Your task to perform on an android device: toggle pop-ups in chrome Image 0: 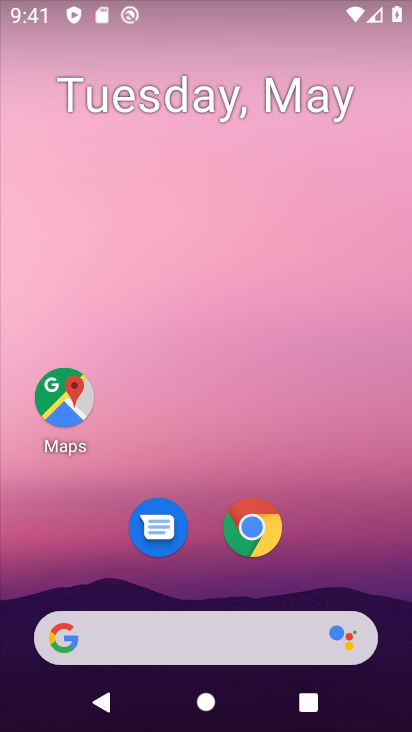
Step 0: click (252, 528)
Your task to perform on an android device: toggle pop-ups in chrome Image 1: 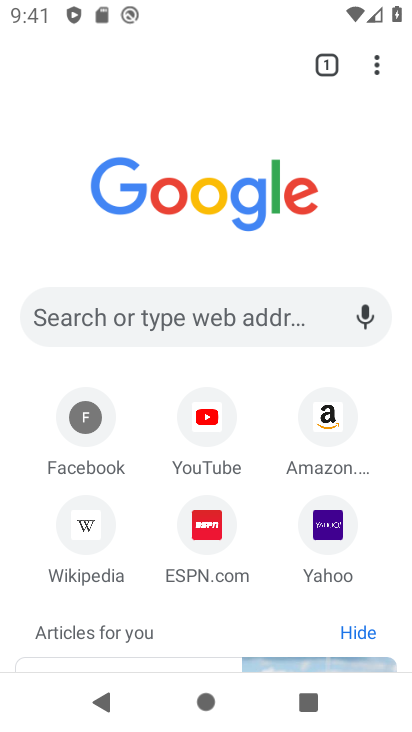
Step 1: click (377, 63)
Your task to perform on an android device: toggle pop-ups in chrome Image 2: 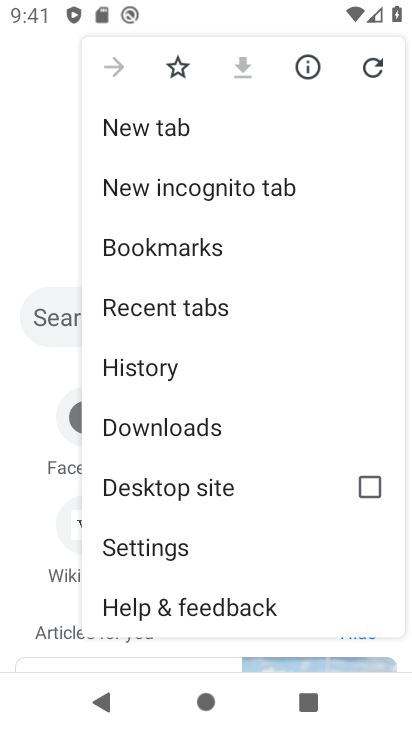
Step 2: drag from (191, 392) to (217, 310)
Your task to perform on an android device: toggle pop-ups in chrome Image 3: 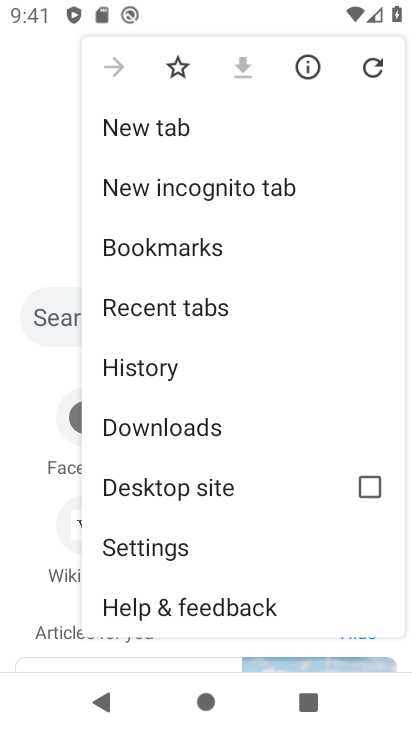
Step 3: click (160, 546)
Your task to perform on an android device: toggle pop-ups in chrome Image 4: 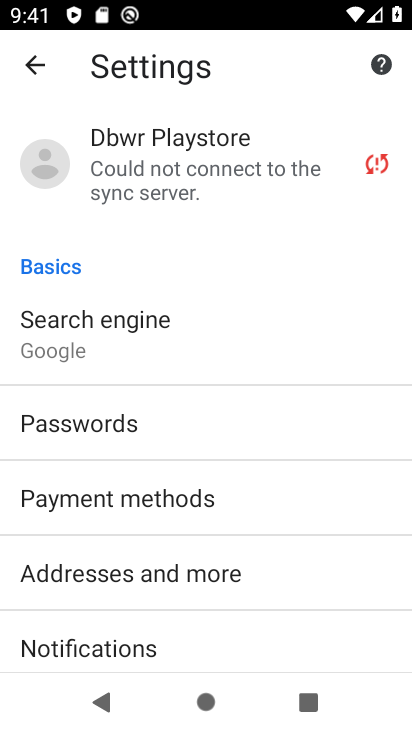
Step 4: drag from (182, 615) to (255, 504)
Your task to perform on an android device: toggle pop-ups in chrome Image 5: 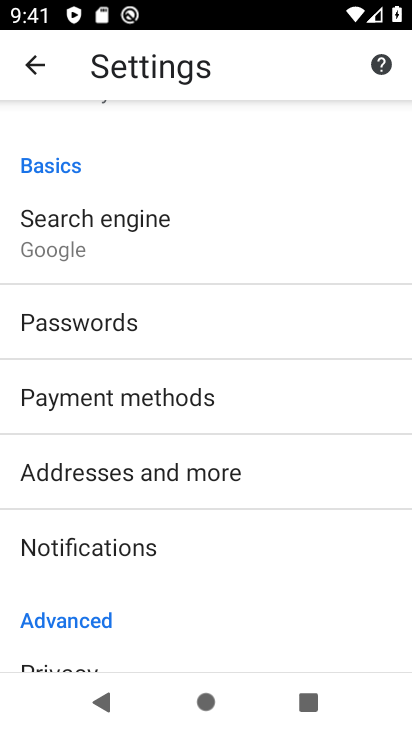
Step 5: drag from (165, 586) to (224, 475)
Your task to perform on an android device: toggle pop-ups in chrome Image 6: 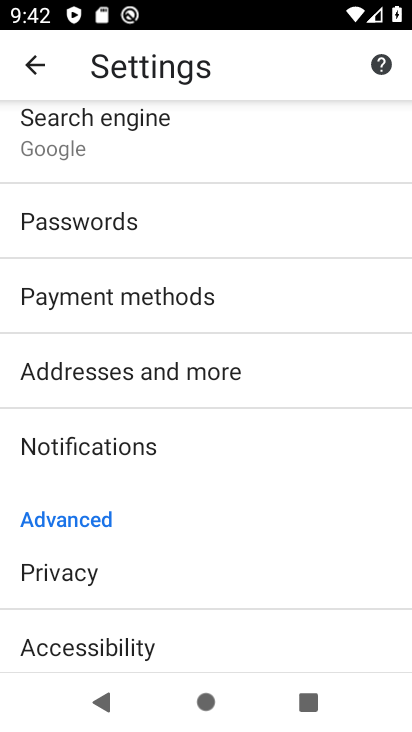
Step 6: drag from (140, 582) to (221, 479)
Your task to perform on an android device: toggle pop-ups in chrome Image 7: 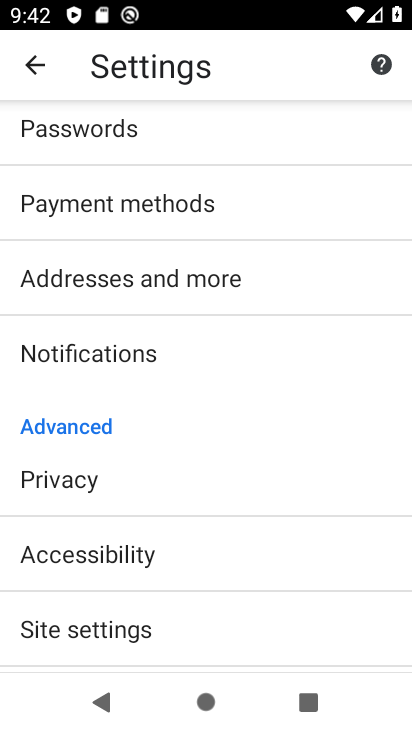
Step 7: drag from (144, 570) to (228, 468)
Your task to perform on an android device: toggle pop-ups in chrome Image 8: 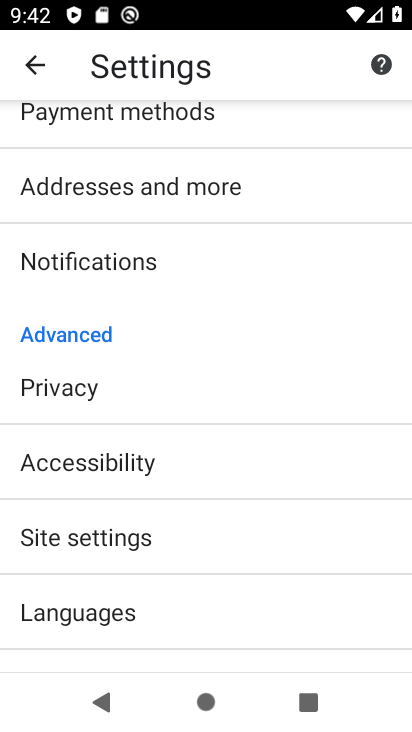
Step 8: click (72, 540)
Your task to perform on an android device: toggle pop-ups in chrome Image 9: 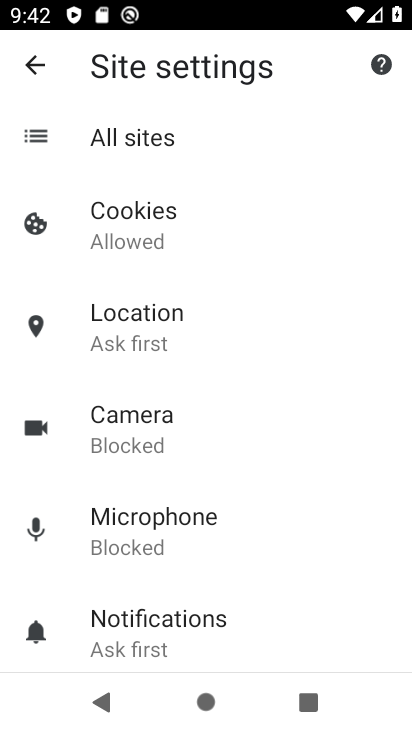
Step 9: drag from (144, 458) to (159, 366)
Your task to perform on an android device: toggle pop-ups in chrome Image 10: 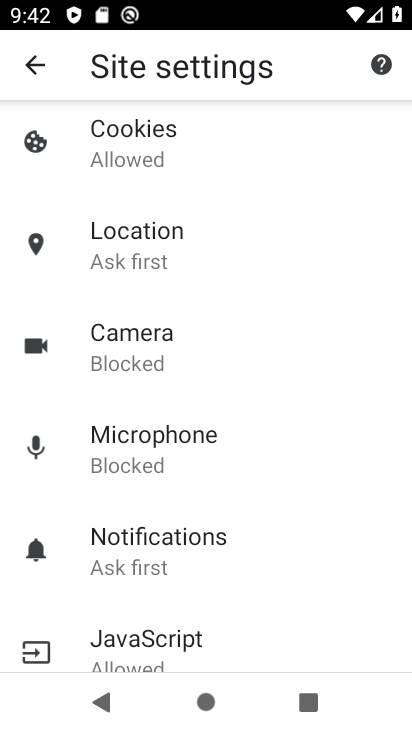
Step 10: drag from (157, 480) to (178, 382)
Your task to perform on an android device: toggle pop-ups in chrome Image 11: 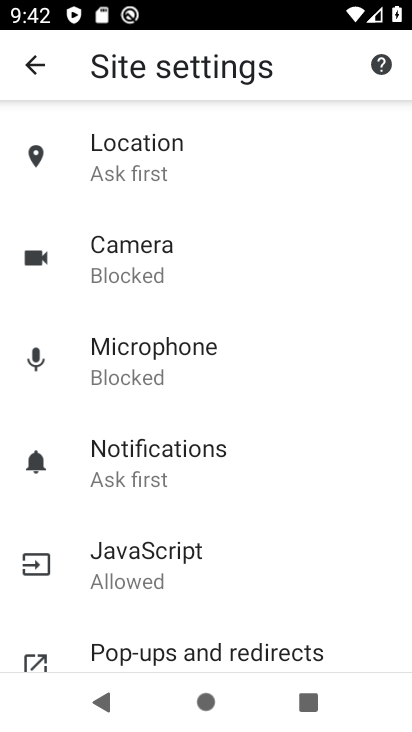
Step 11: drag from (178, 531) to (243, 406)
Your task to perform on an android device: toggle pop-ups in chrome Image 12: 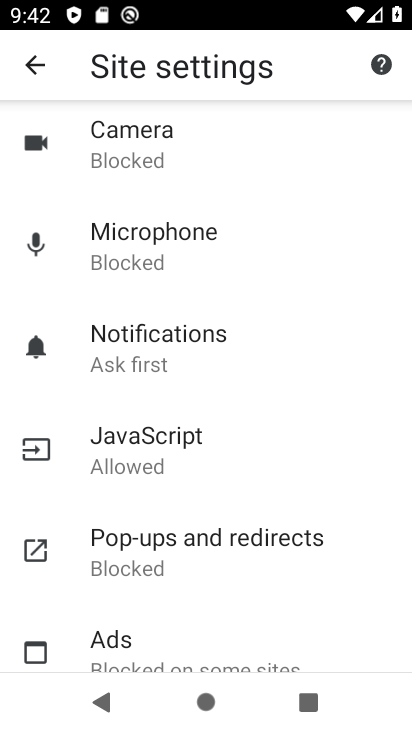
Step 12: click (199, 535)
Your task to perform on an android device: toggle pop-ups in chrome Image 13: 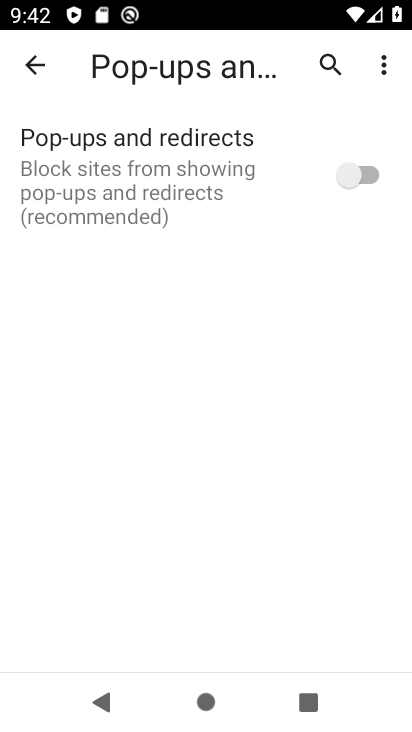
Step 13: click (348, 177)
Your task to perform on an android device: toggle pop-ups in chrome Image 14: 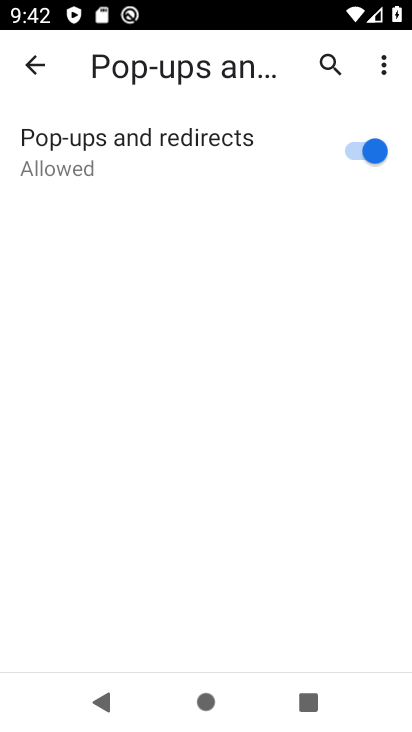
Step 14: task complete